Your task to perform on an android device: turn on notifications settings in the gmail app Image 0: 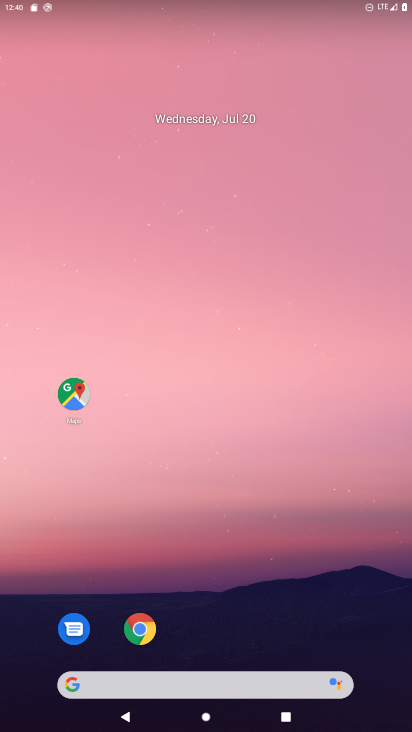
Step 0: drag from (204, 644) to (205, 109)
Your task to perform on an android device: turn on notifications settings in the gmail app Image 1: 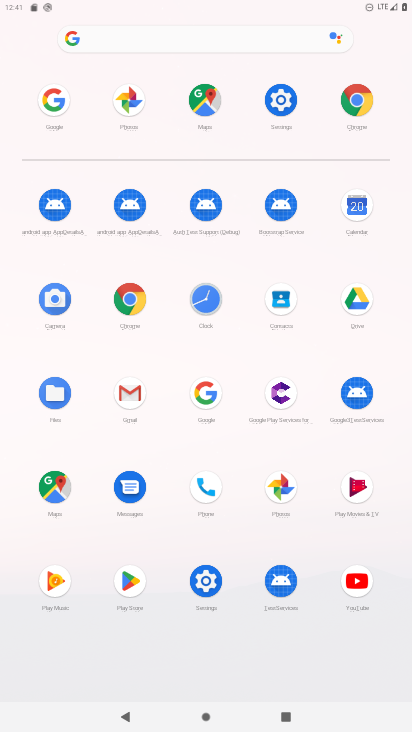
Step 1: click (123, 390)
Your task to perform on an android device: turn on notifications settings in the gmail app Image 2: 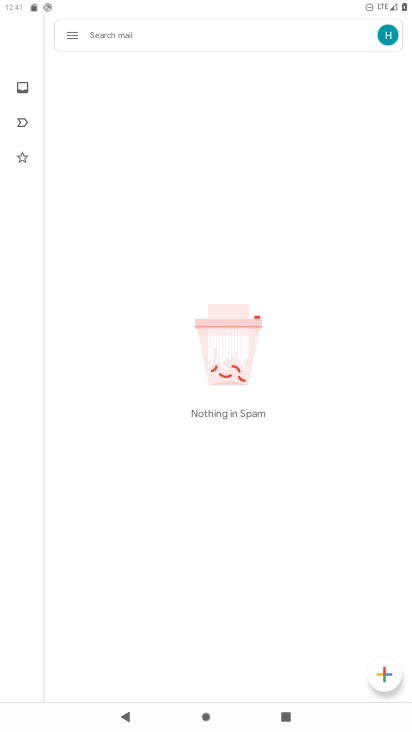
Step 2: click (69, 34)
Your task to perform on an android device: turn on notifications settings in the gmail app Image 3: 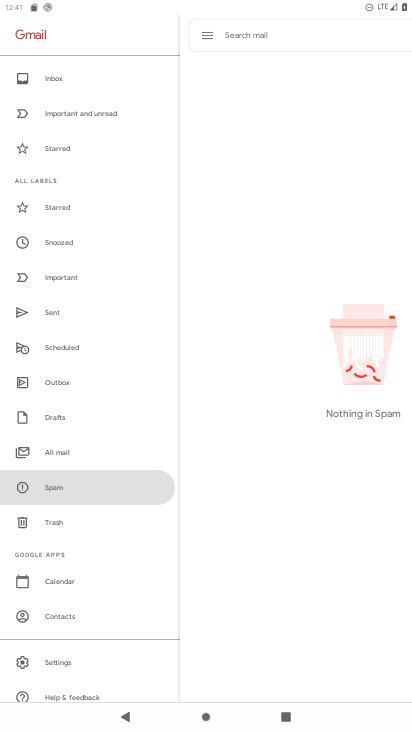
Step 3: click (71, 662)
Your task to perform on an android device: turn on notifications settings in the gmail app Image 4: 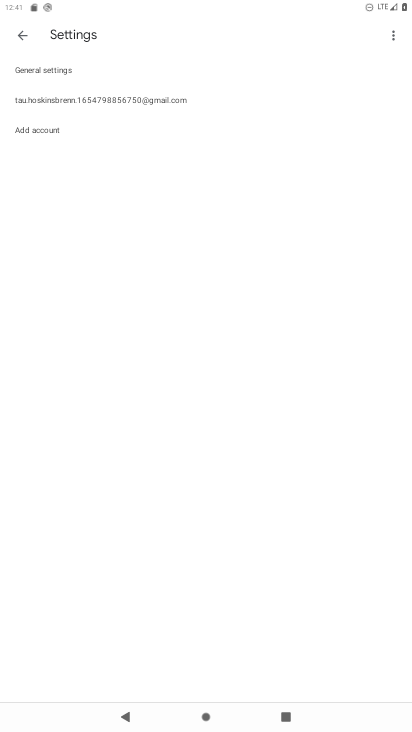
Step 4: click (64, 109)
Your task to perform on an android device: turn on notifications settings in the gmail app Image 5: 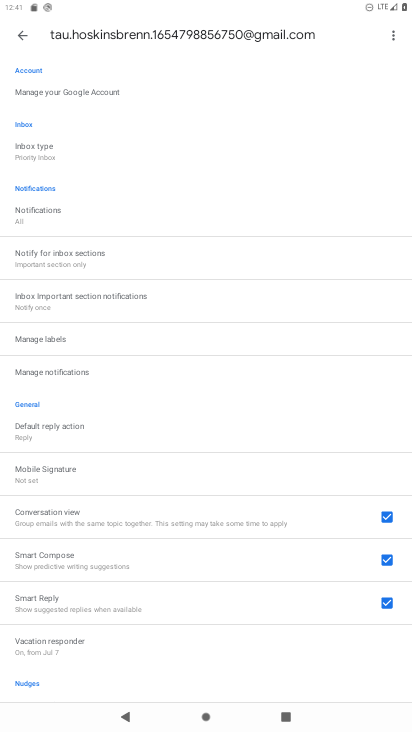
Step 5: click (51, 375)
Your task to perform on an android device: turn on notifications settings in the gmail app Image 6: 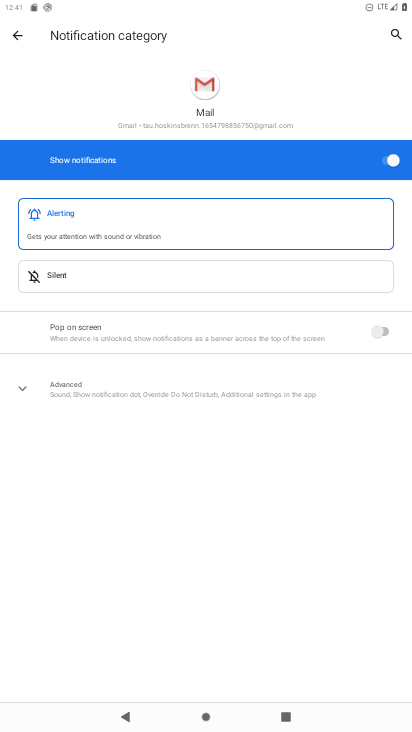
Step 6: task complete